Your task to perform on an android device: Open Google Maps and go to "Timeline" Image 0: 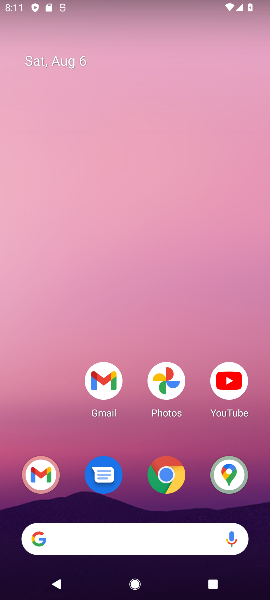
Step 0: click (215, 473)
Your task to perform on an android device: Open Google Maps and go to "Timeline" Image 1: 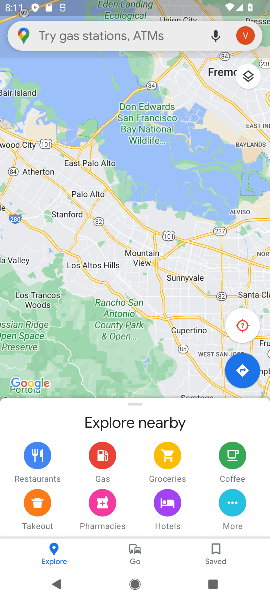
Step 1: click (241, 36)
Your task to perform on an android device: Open Google Maps and go to "Timeline" Image 2: 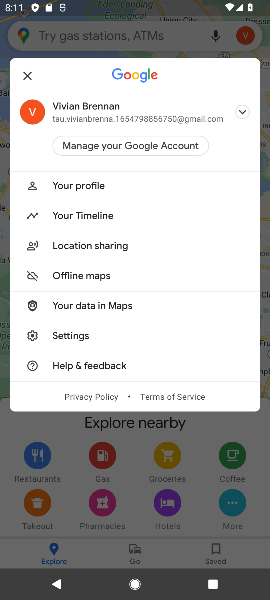
Step 2: click (92, 213)
Your task to perform on an android device: Open Google Maps and go to "Timeline" Image 3: 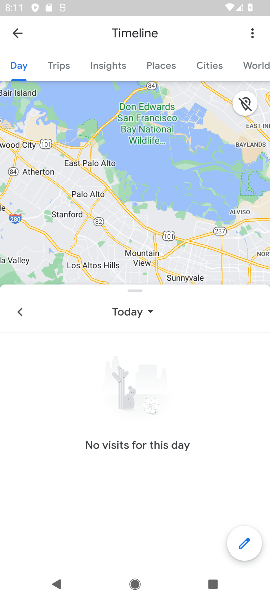
Step 3: task complete